Your task to perform on an android device: snooze an email in the gmail app Image 0: 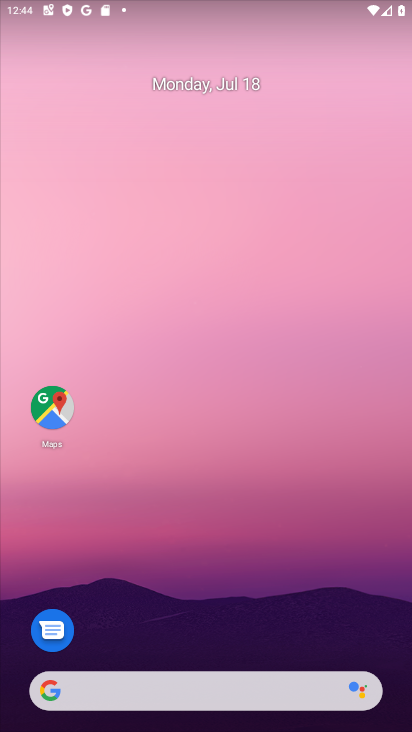
Step 0: drag from (241, 569) to (323, 4)
Your task to perform on an android device: snooze an email in the gmail app Image 1: 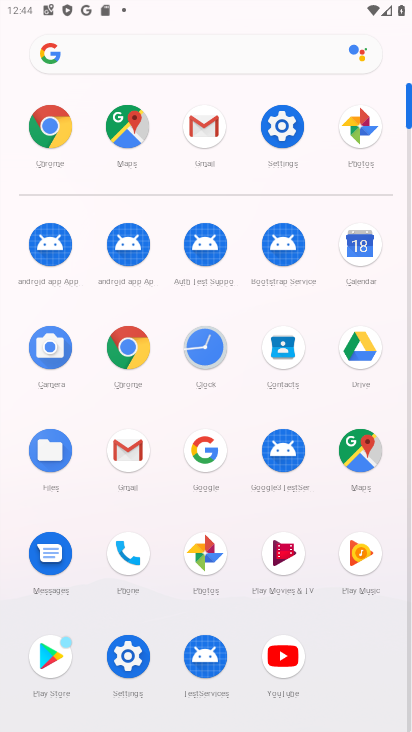
Step 1: click (116, 450)
Your task to perform on an android device: snooze an email in the gmail app Image 2: 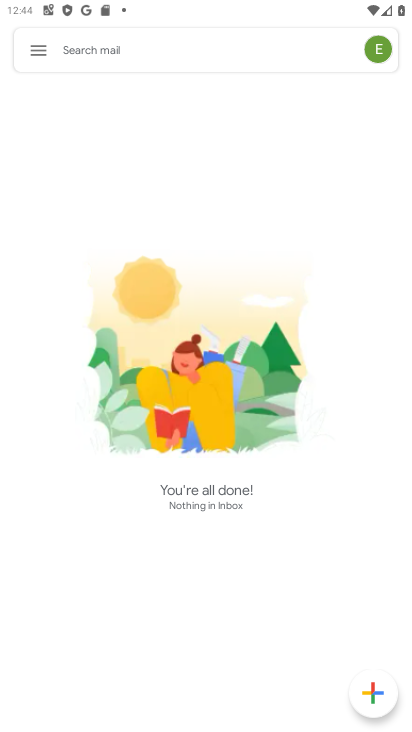
Step 2: click (32, 41)
Your task to perform on an android device: snooze an email in the gmail app Image 3: 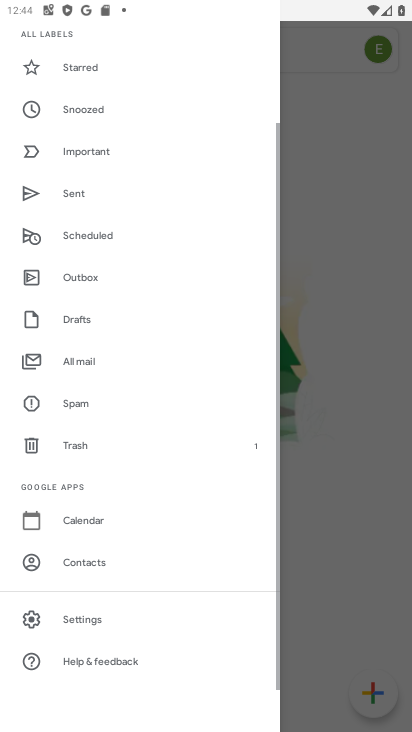
Step 3: drag from (134, 231) to (125, 431)
Your task to perform on an android device: snooze an email in the gmail app Image 4: 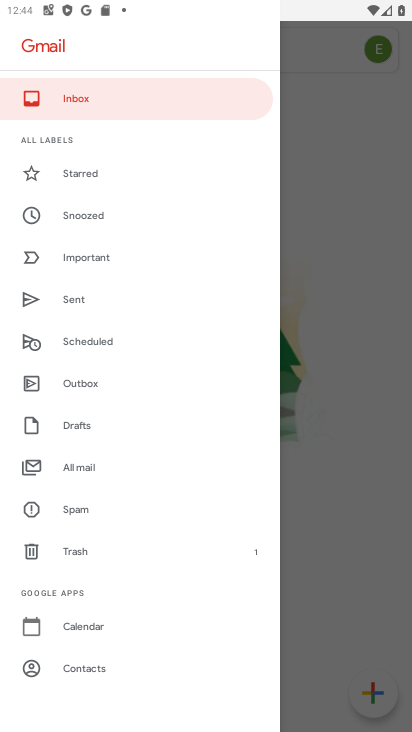
Step 4: click (98, 226)
Your task to perform on an android device: snooze an email in the gmail app Image 5: 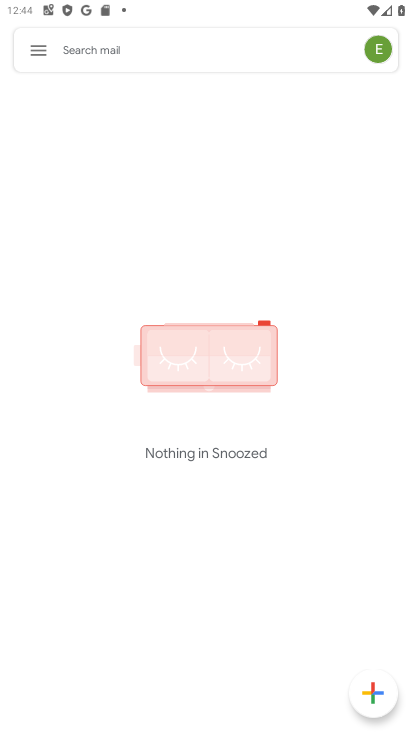
Step 5: task complete